Your task to perform on an android device: Open accessibility settings Image 0: 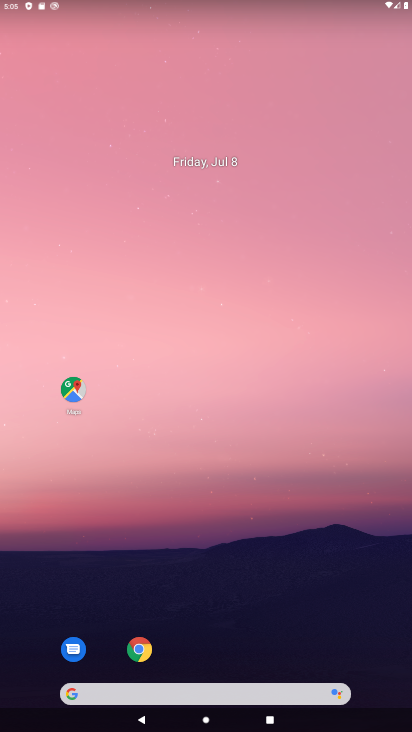
Step 0: drag from (350, 604) to (292, 72)
Your task to perform on an android device: Open accessibility settings Image 1: 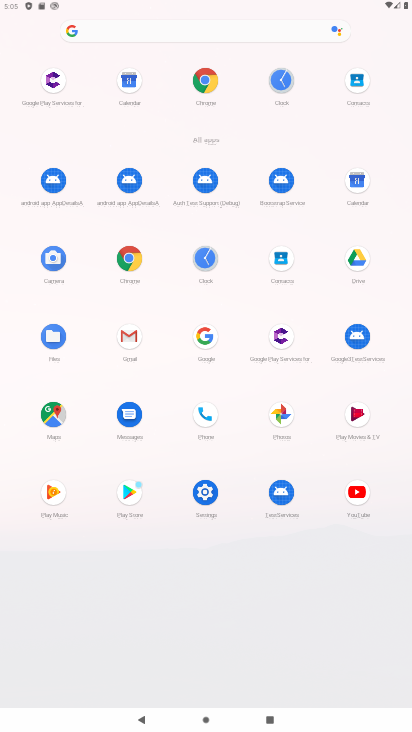
Step 1: click (201, 492)
Your task to perform on an android device: Open accessibility settings Image 2: 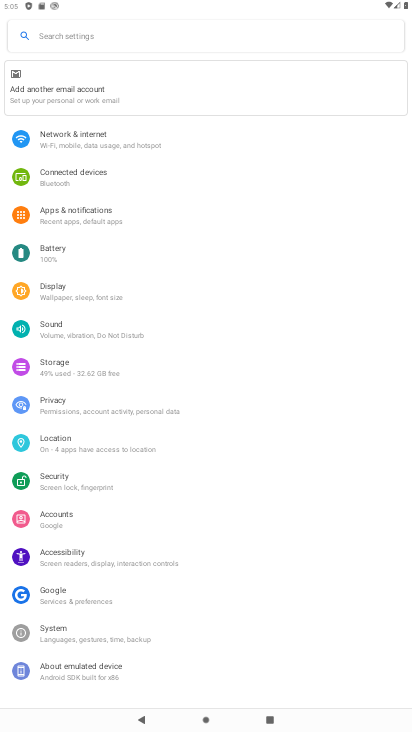
Step 2: click (99, 557)
Your task to perform on an android device: Open accessibility settings Image 3: 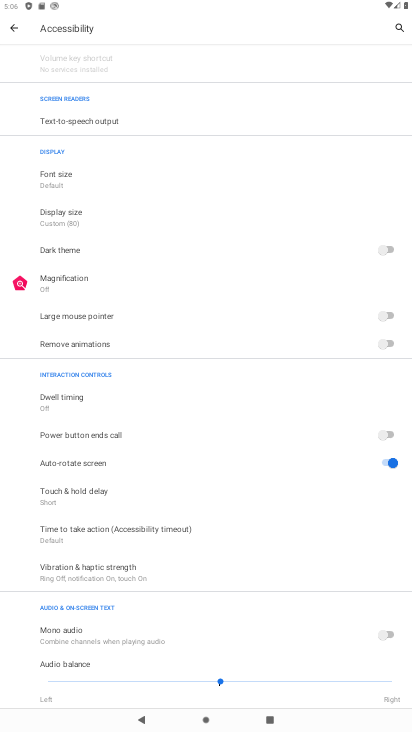
Step 3: task complete